Your task to perform on an android device: toggle sleep mode Image 0: 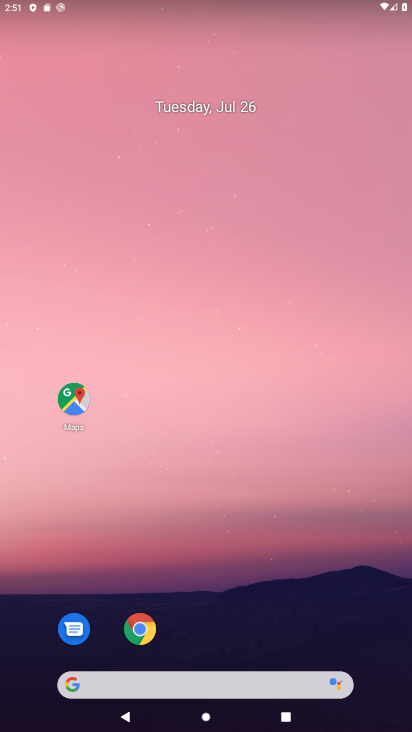
Step 0: drag from (226, 729) to (229, 215)
Your task to perform on an android device: toggle sleep mode Image 1: 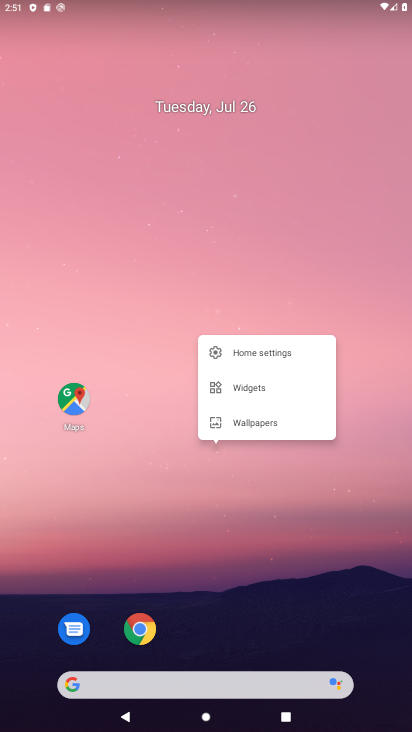
Step 1: click (289, 540)
Your task to perform on an android device: toggle sleep mode Image 2: 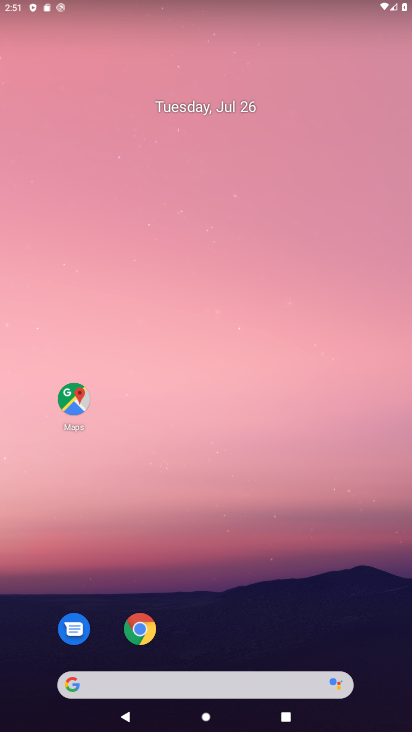
Step 2: drag from (227, 728) to (210, 291)
Your task to perform on an android device: toggle sleep mode Image 3: 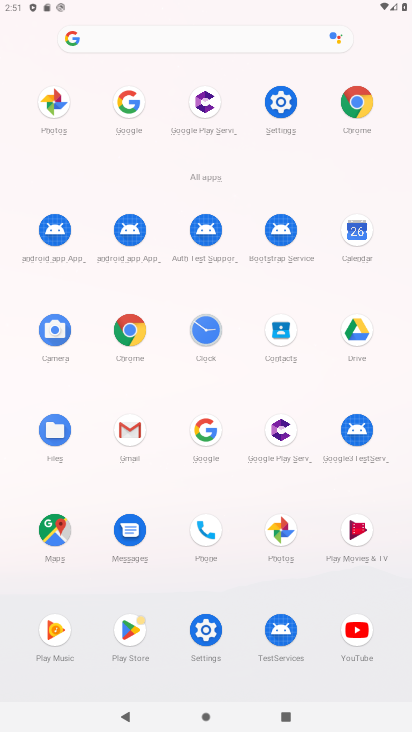
Step 3: click (279, 107)
Your task to perform on an android device: toggle sleep mode Image 4: 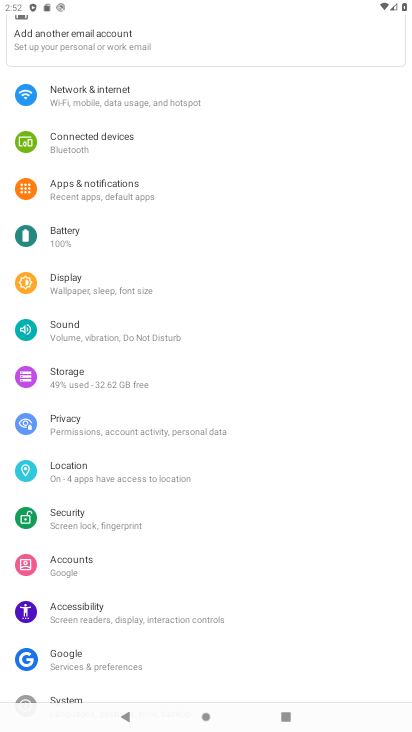
Step 4: click (138, 288)
Your task to perform on an android device: toggle sleep mode Image 5: 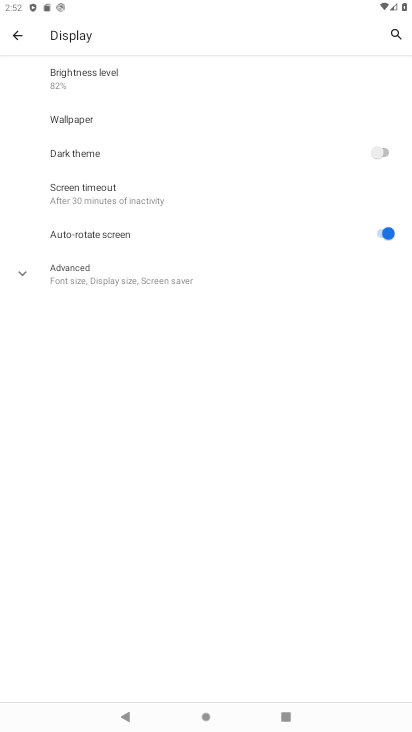
Step 5: task complete